Your task to perform on an android device: turn off improve location accuracy Image 0: 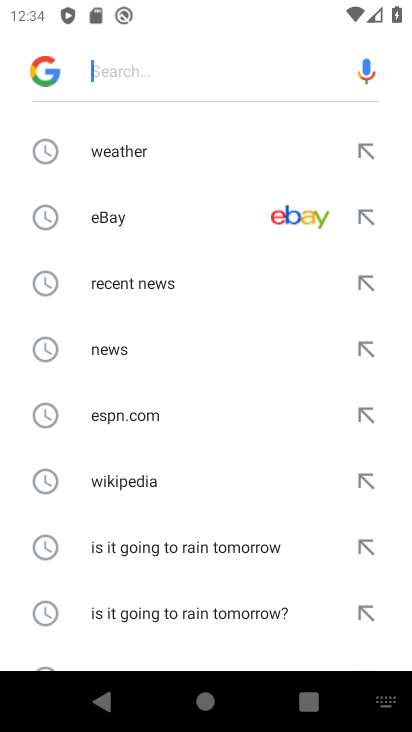
Step 0: press home button
Your task to perform on an android device: turn off improve location accuracy Image 1: 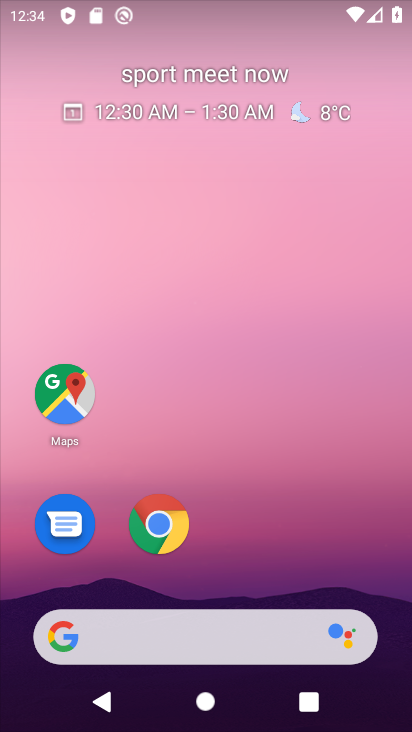
Step 1: drag from (237, 502) to (319, 62)
Your task to perform on an android device: turn off improve location accuracy Image 2: 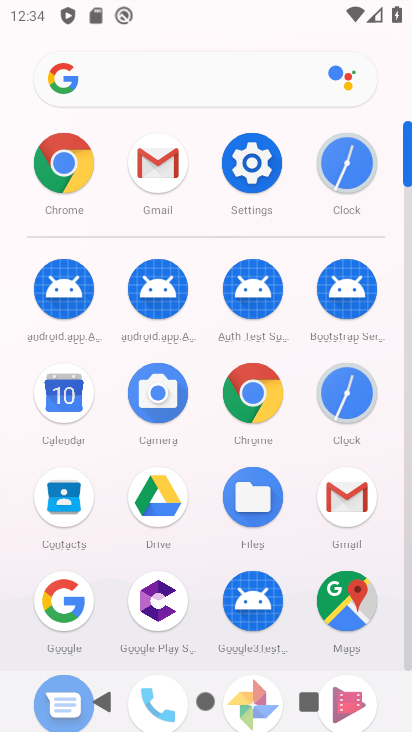
Step 2: click (259, 161)
Your task to perform on an android device: turn off improve location accuracy Image 3: 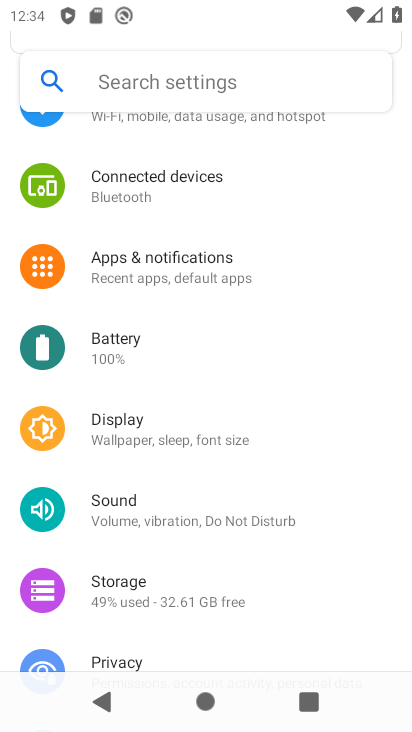
Step 3: drag from (216, 558) to (245, 187)
Your task to perform on an android device: turn off improve location accuracy Image 4: 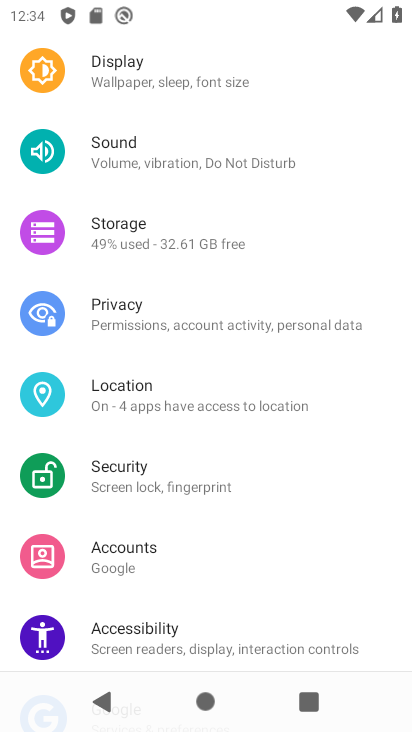
Step 4: click (187, 403)
Your task to perform on an android device: turn off improve location accuracy Image 5: 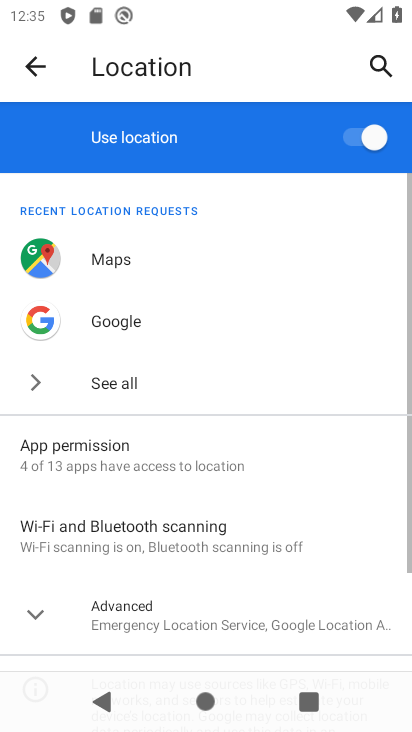
Step 5: click (38, 604)
Your task to perform on an android device: turn off improve location accuracy Image 6: 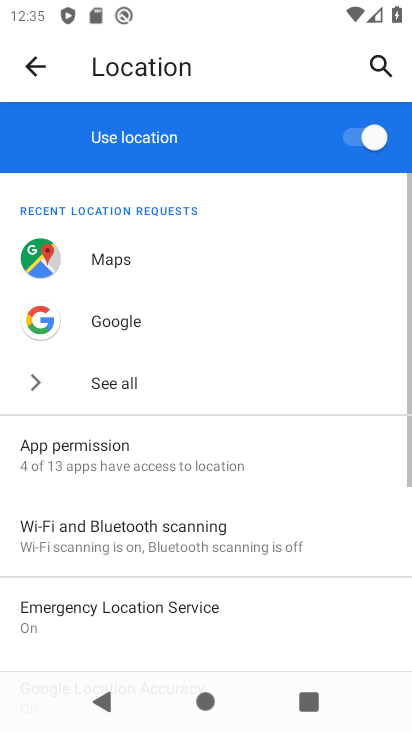
Step 6: drag from (279, 503) to (343, 225)
Your task to perform on an android device: turn off improve location accuracy Image 7: 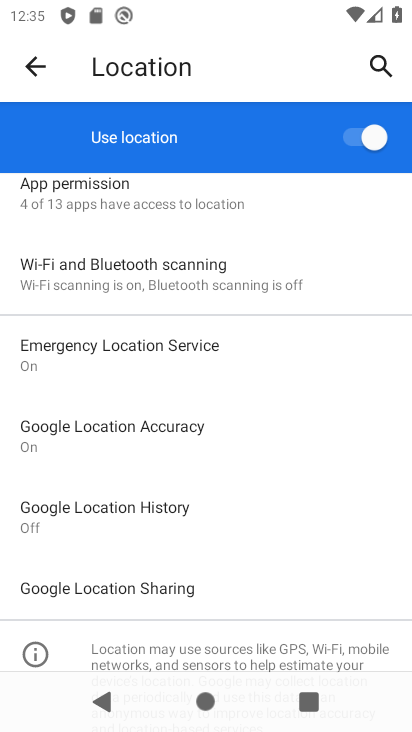
Step 7: click (156, 436)
Your task to perform on an android device: turn off improve location accuracy Image 8: 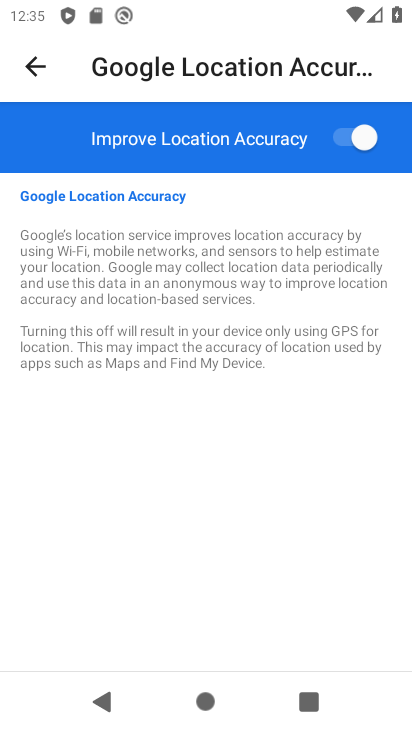
Step 8: click (339, 133)
Your task to perform on an android device: turn off improve location accuracy Image 9: 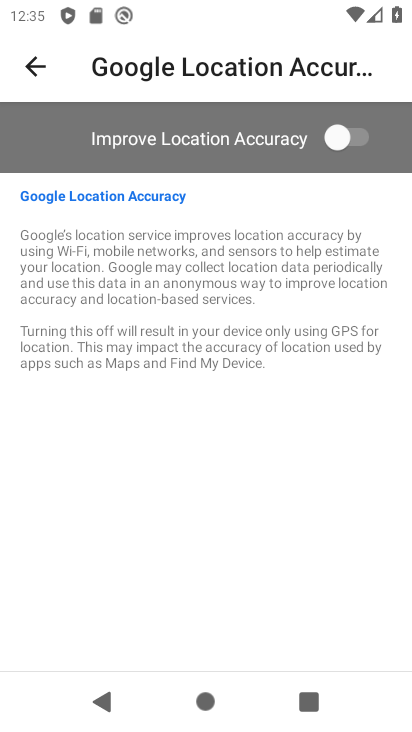
Step 9: task complete